Your task to perform on an android device: toggle translation in the chrome app Image 0: 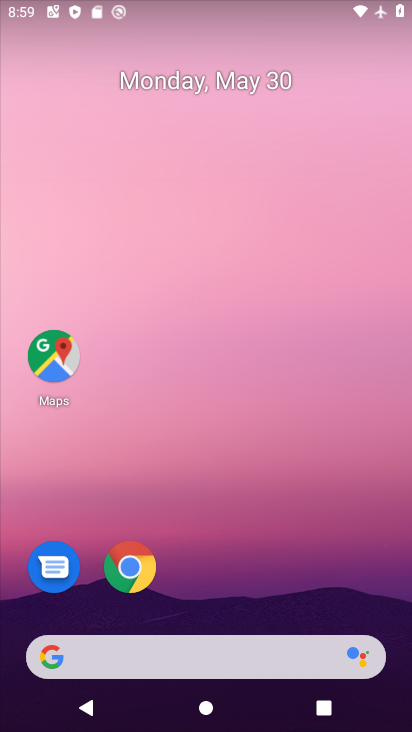
Step 0: click (148, 553)
Your task to perform on an android device: toggle translation in the chrome app Image 1: 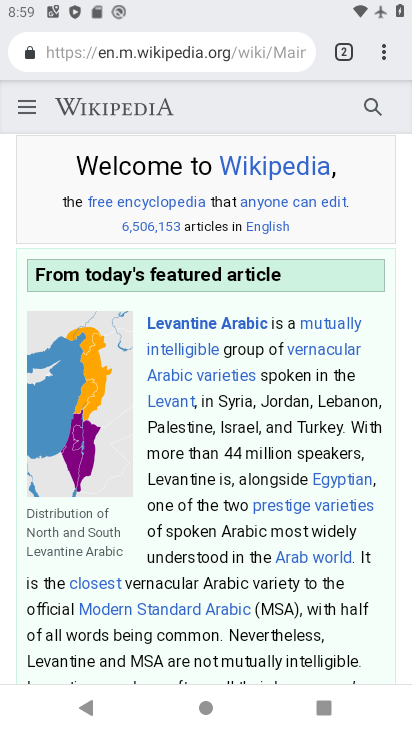
Step 1: click (385, 46)
Your task to perform on an android device: toggle translation in the chrome app Image 2: 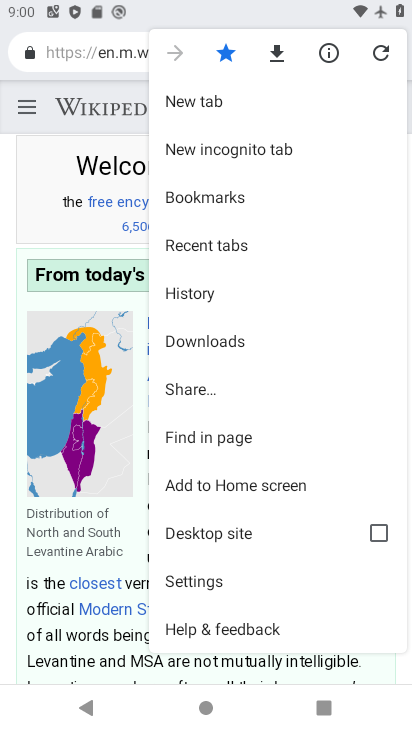
Step 2: click (210, 584)
Your task to perform on an android device: toggle translation in the chrome app Image 3: 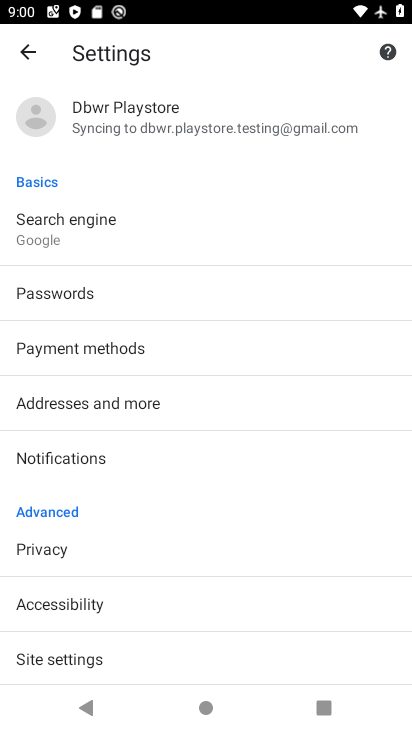
Step 3: drag from (211, 615) to (234, 298)
Your task to perform on an android device: toggle translation in the chrome app Image 4: 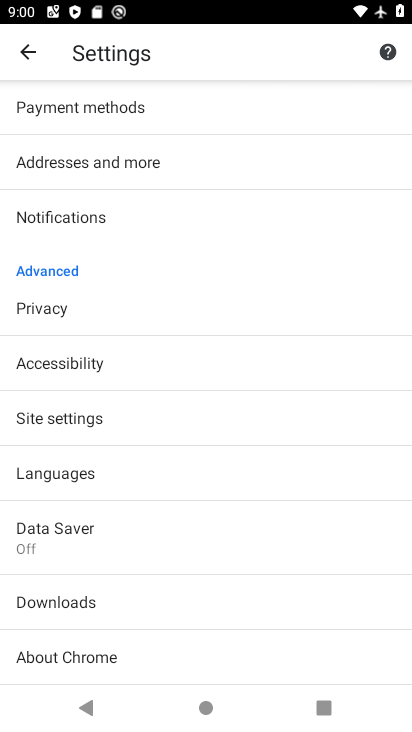
Step 4: click (141, 473)
Your task to perform on an android device: toggle translation in the chrome app Image 5: 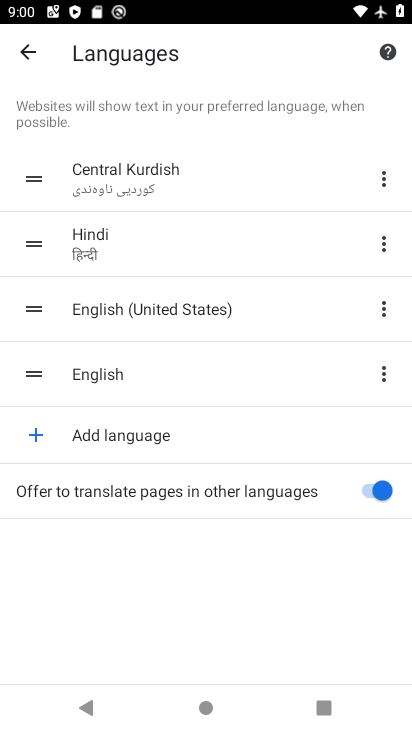
Step 5: click (384, 486)
Your task to perform on an android device: toggle translation in the chrome app Image 6: 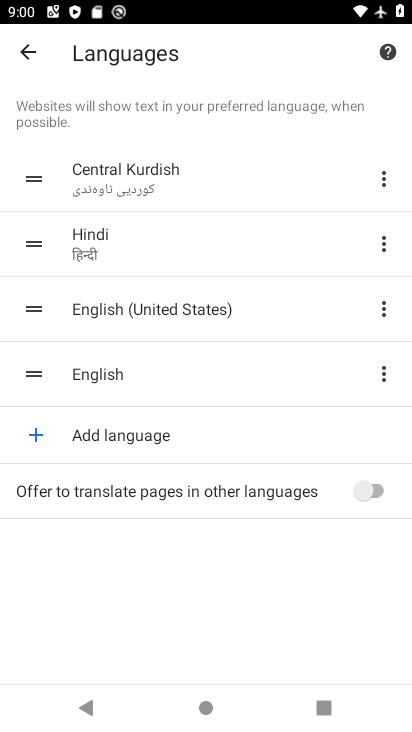
Step 6: task complete